Your task to perform on an android device: Turn on the flashlight Image 0: 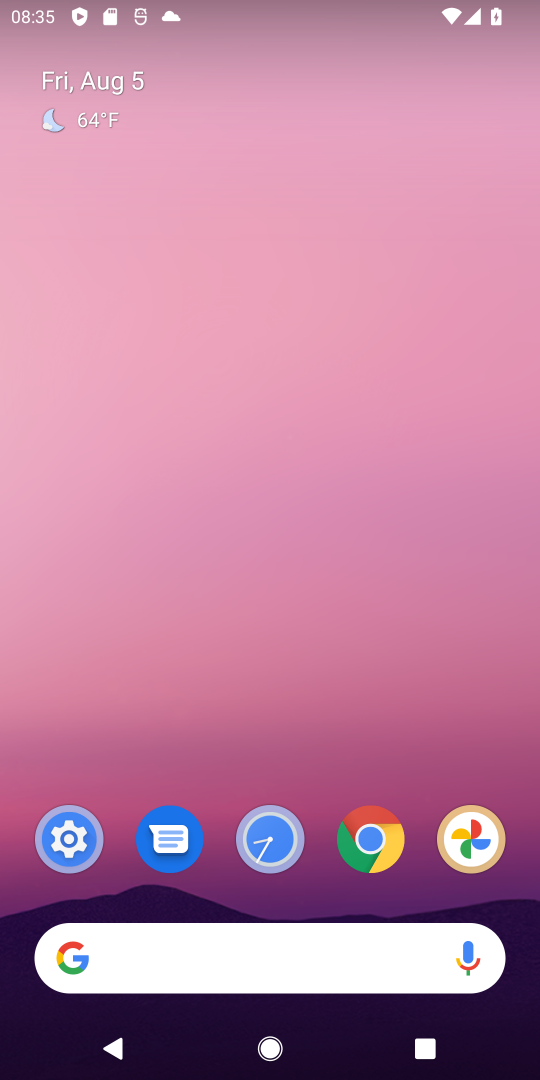
Step 0: drag from (318, 875) to (347, 299)
Your task to perform on an android device: Turn on the flashlight Image 1: 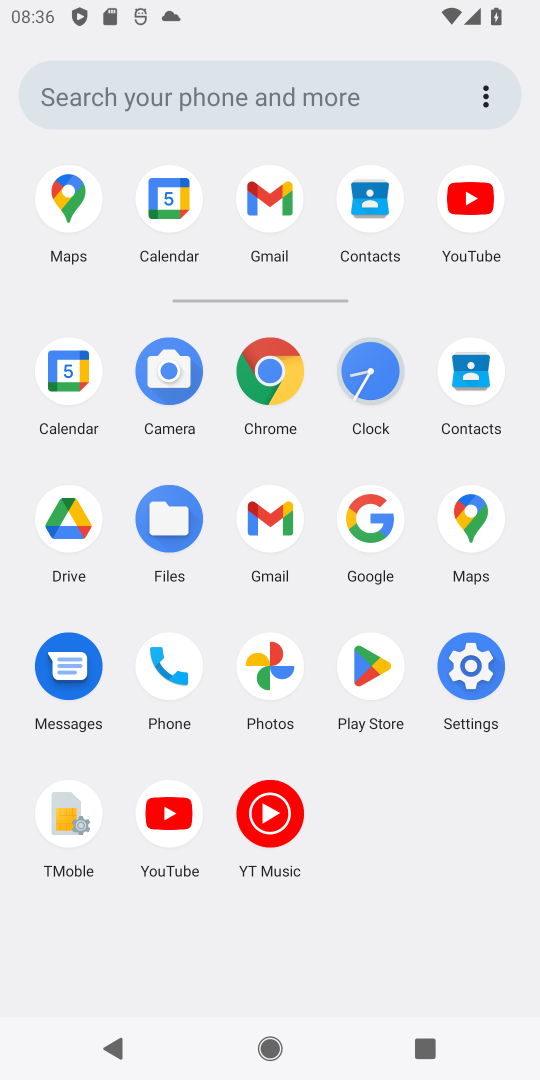
Step 1: click (470, 659)
Your task to perform on an android device: Turn on the flashlight Image 2: 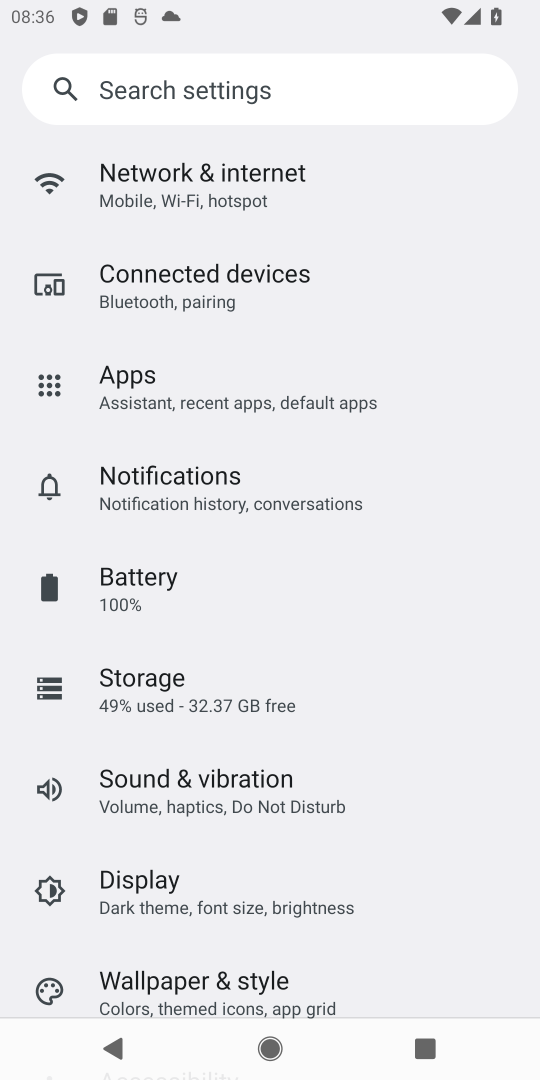
Step 2: task complete